Your task to perform on an android device: Open display settings Image 0: 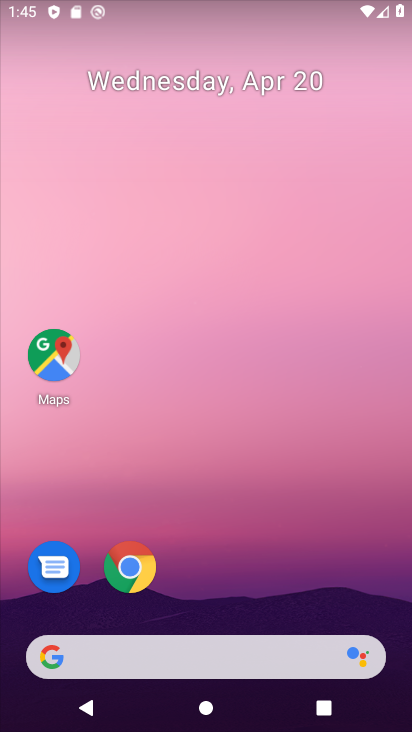
Step 0: drag from (207, 727) to (181, 136)
Your task to perform on an android device: Open display settings Image 1: 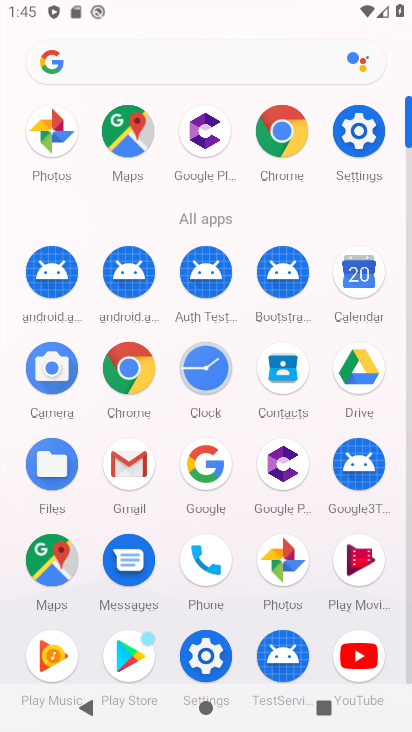
Step 1: click (360, 139)
Your task to perform on an android device: Open display settings Image 2: 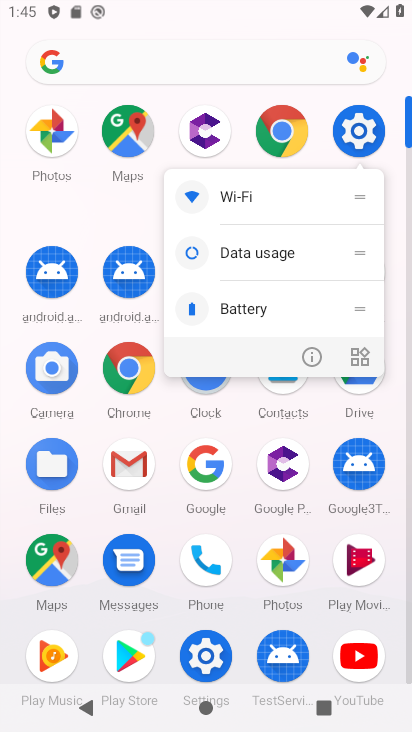
Step 2: click (361, 140)
Your task to perform on an android device: Open display settings Image 3: 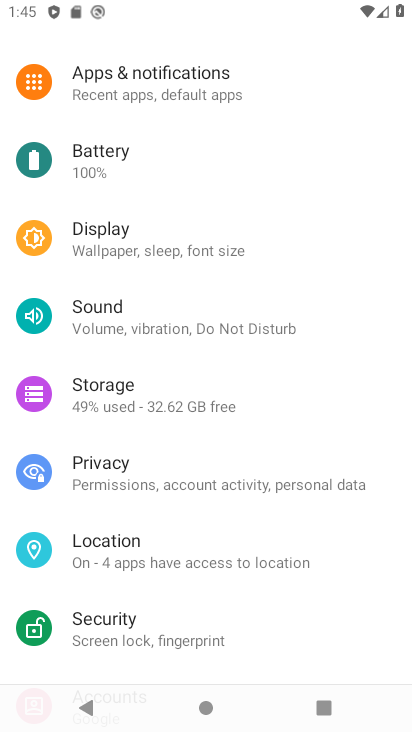
Step 3: click (116, 237)
Your task to perform on an android device: Open display settings Image 4: 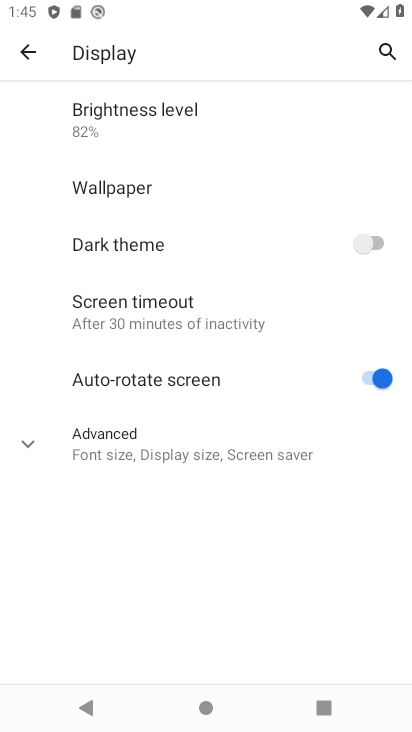
Step 4: task complete